Your task to perform on an android device: turn smart compose on in the gmail app Image 0: 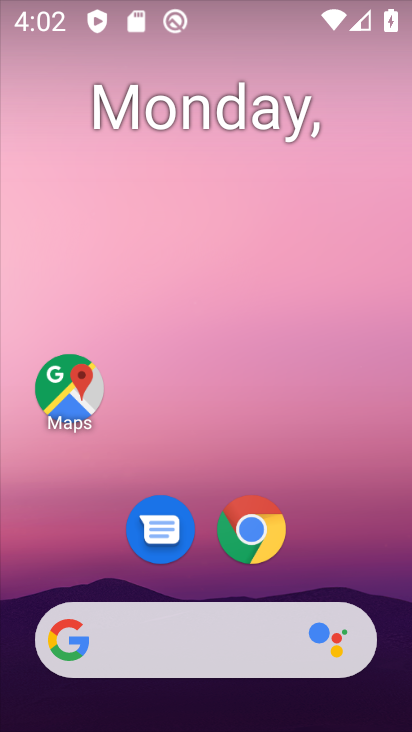
Step 0: drag from (210, 578) to (223, 123)
Your task to perform on an android device: turn smart compose on in the gmail app Image 1: 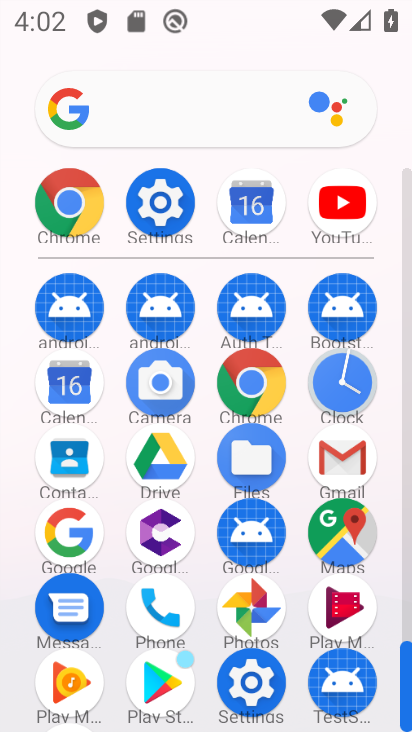
Step 1: click (349, 467)
Your task to perform on an android device: turn smart compose on in the gmail app Image 2: 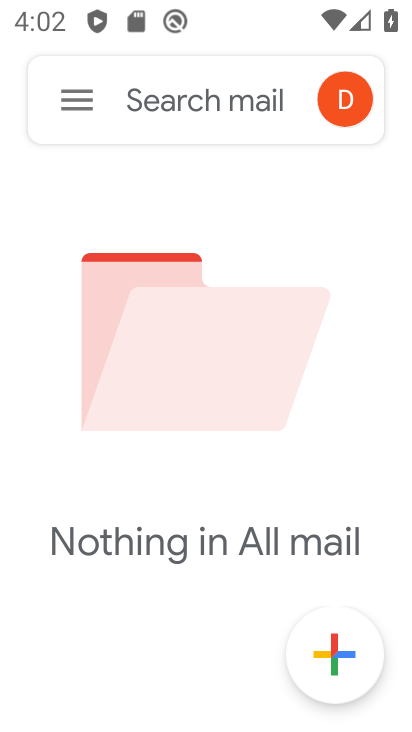
Step 2: click (73, 100)
Your task to perform on an android device: turn smart compose on in the gmail app Image 3: 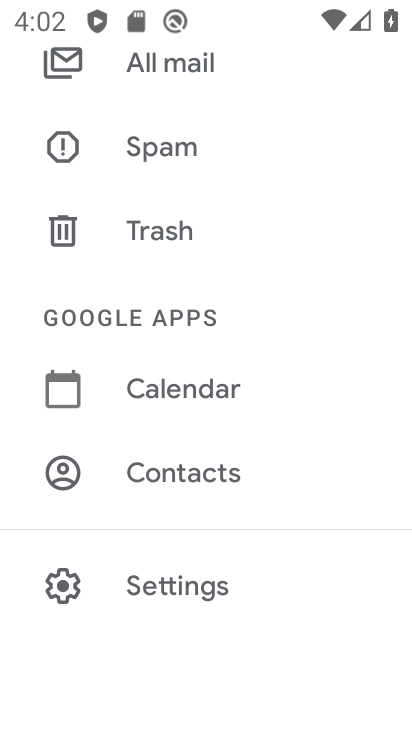
Step 3: click (99, 605)
Your task to perform on an android device: turn smart compose on in the gmail app Image 4: 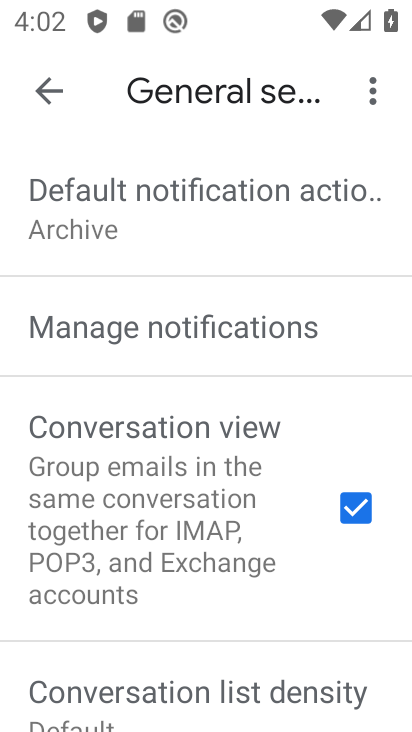
Step 4: click (43, 84)
Your task to perform on an android device: turn smart compose on in the gmail app Image 5: 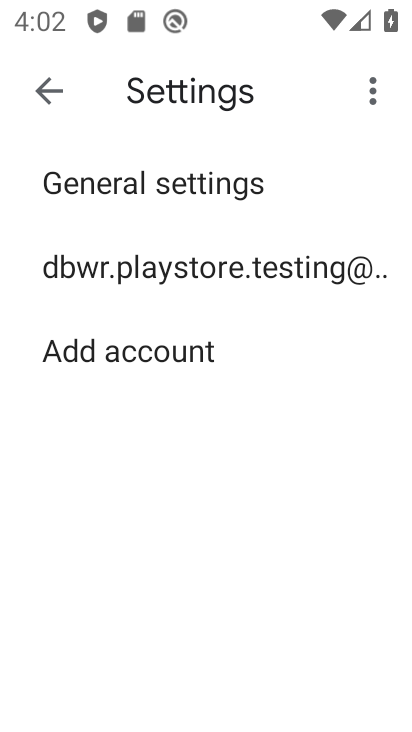
Step 5: click (238, 259)
Your task to perform on an android device: turn smart compose on in the gmail app Image 6: 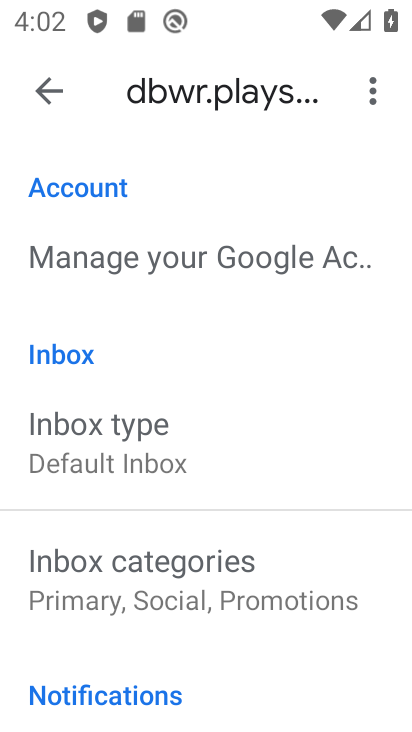
Step 6: task complete